Your task to perform on an android device: toggle wifi Image 0: 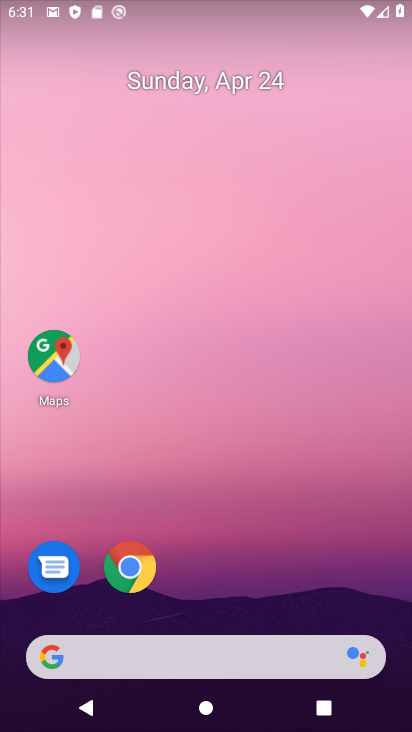
Step 0: drag from (181, 3) to (211, 358)
Your task to perform on an android device: toggle wifi Image 1: 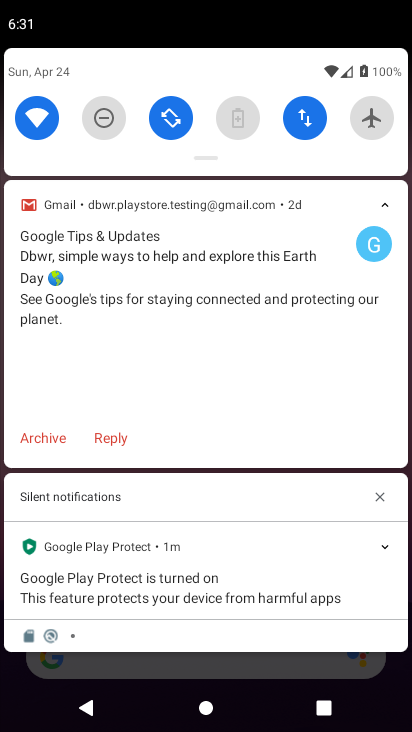
Step 1: click (28, 111)
Your task to perform on an android device: toggle wifi Image 2: 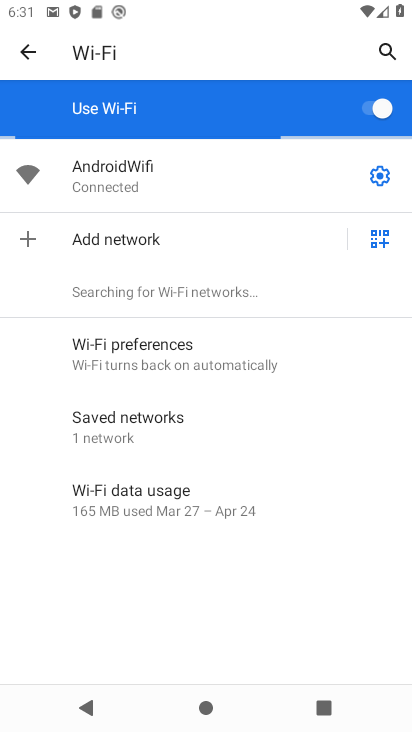
Step 2: click (361, 111)
Your task to perform on an android device: toggle wifi Image 3: 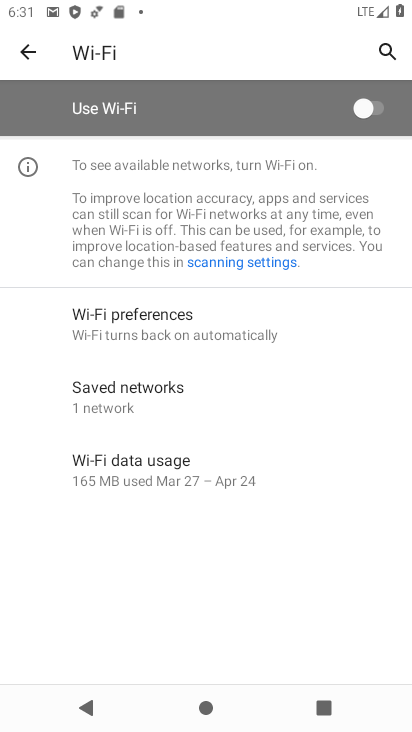
Step 3: task complete